Your task to perform on an android device: Search for seafood restaurants on Google Maps Image 0: 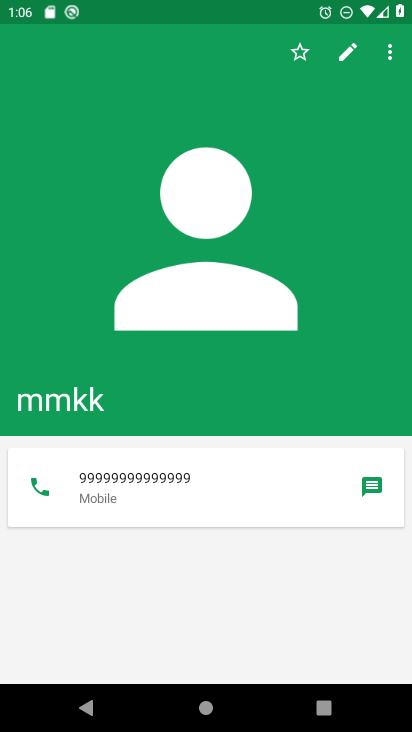
Step 0: press home button
Your task to perform on an android device: Search for seafood restaurants on Google Maps Image 1: 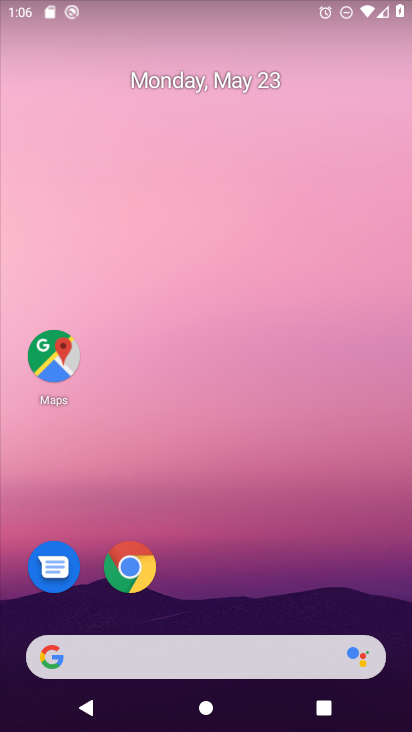
Step 1: click (45, 355)
Your task to perform on an android device: Search for seafood restaurants on Google Maps Image 2: 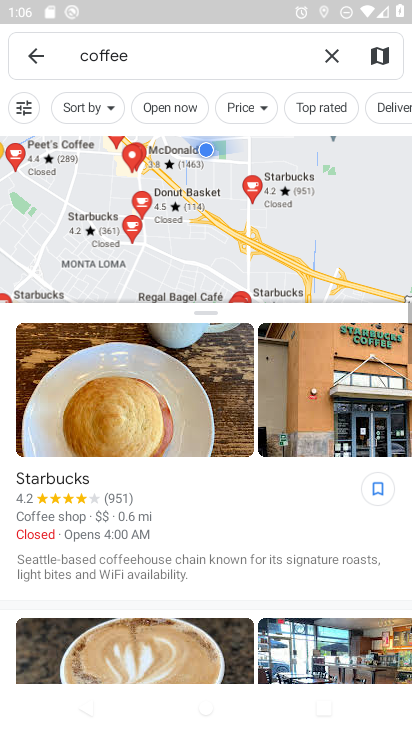
Step 2: click (329, 73)
Your task to perform on an android device: Search for seafood restaurants on Google Maps Image 3: 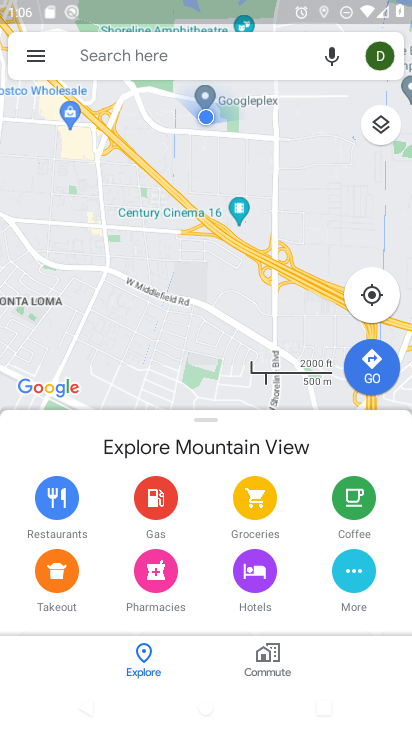
Step 3: click (183, 72)
Your task to perform on an android device: Search for seafood restaurants on Google Maps Image 4: 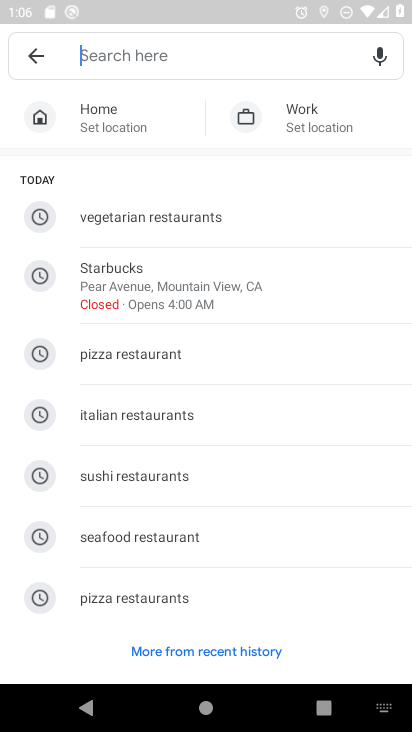
Step 4: click (131, 536)
Your task to perform on an android device: Search for seafood restaurants on Google Maps Image 5: 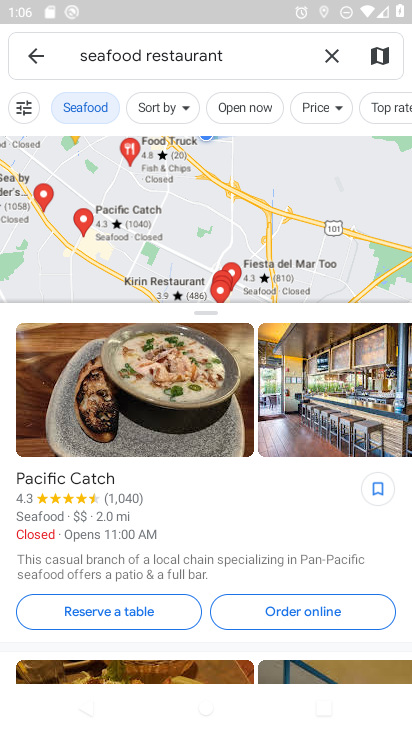
Step 5: task complete